Your task to perform on an android device: find which apps use the phone's location Image 0: 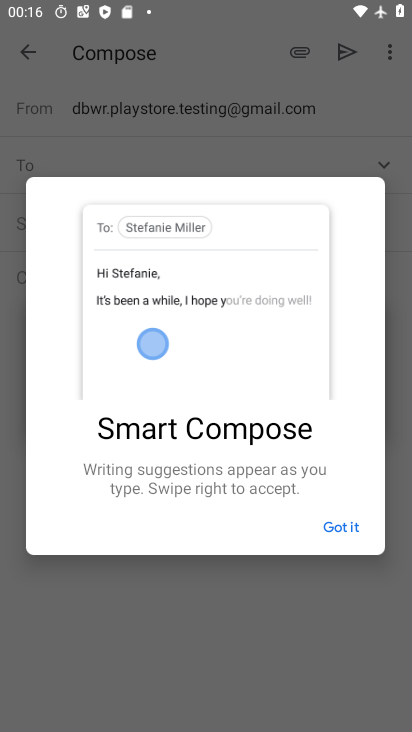
Step 0: press home button
Your task to perform on an android device: find which apps use the phone's location Image 1: 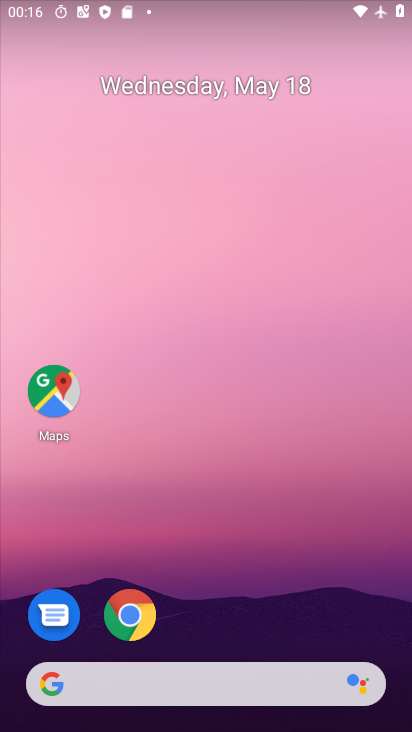
Step 1: drag from (187, 629) to (173, 227)
Your task to perform on an android device: find which apps use the phone's location Image 2: 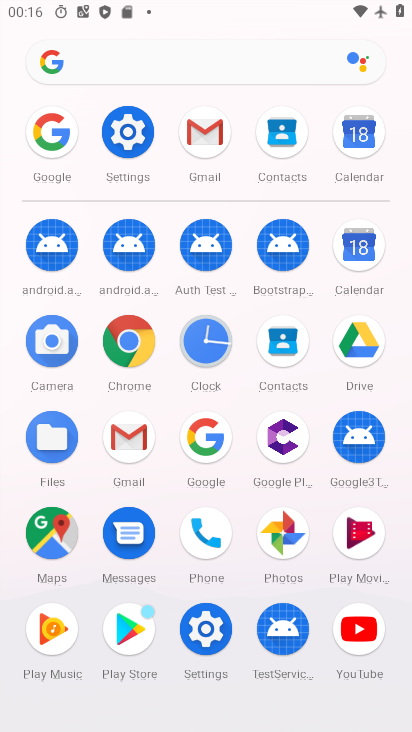
Step 2: click (131, 123)
Your task to perform on an android device: find which apps use the phone's location Image 3: 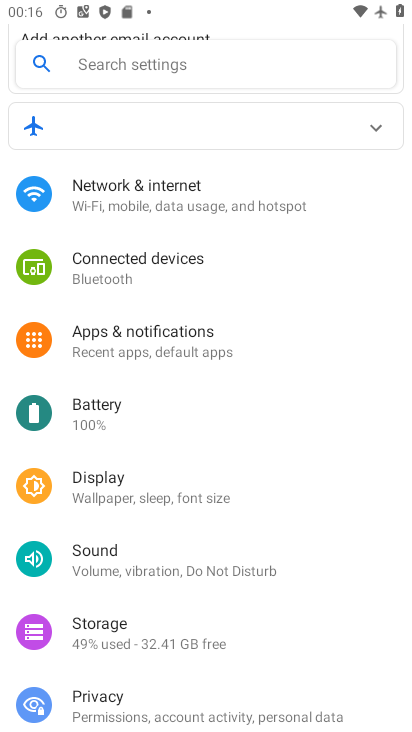
Step 3: drag from (143, 669) to (154, 447)
Your task to perform on an android device: find which apps use the phone's location Image 4: 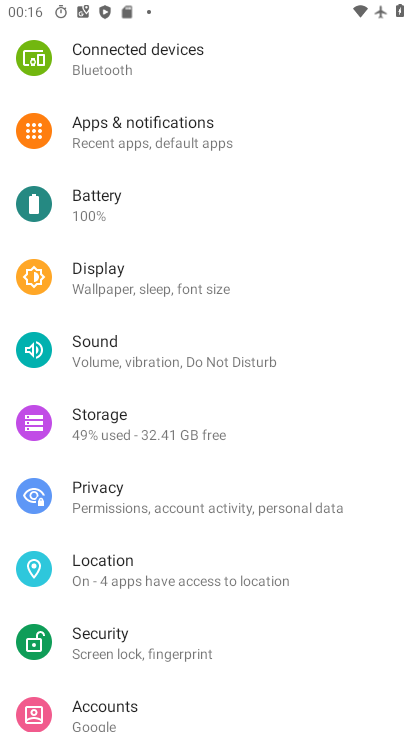
Step 4: click (144, 573)
Your task to perform on an android device: find which apps use the phone's location Image 5: 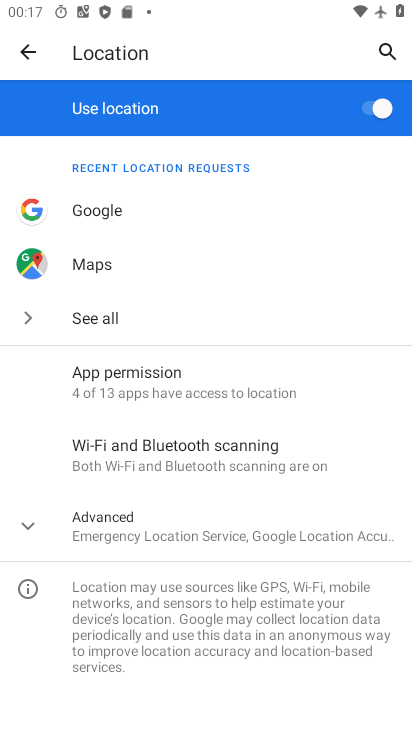
Step 5: click (131, 370)
Your task to perform on an android device: find which apps use the phone's location Image 6: 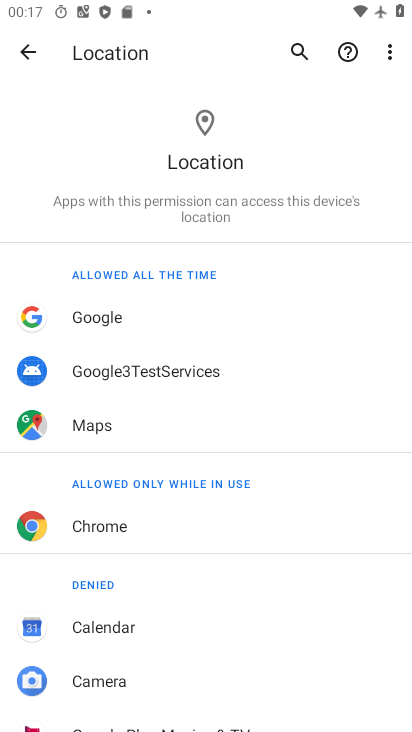
Step 6: task complete